Your task to perform on an android device: Go to eBay Image 0: 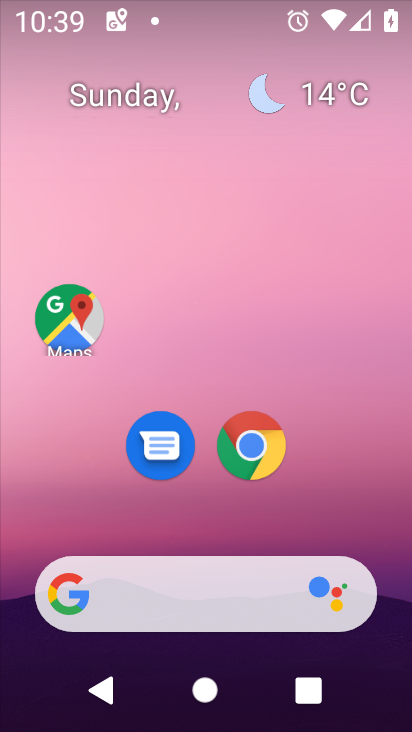
Step 0: drag from (205, 519) to (256, 57)
Your task to perform on an android device: Go to eBay Image 1: 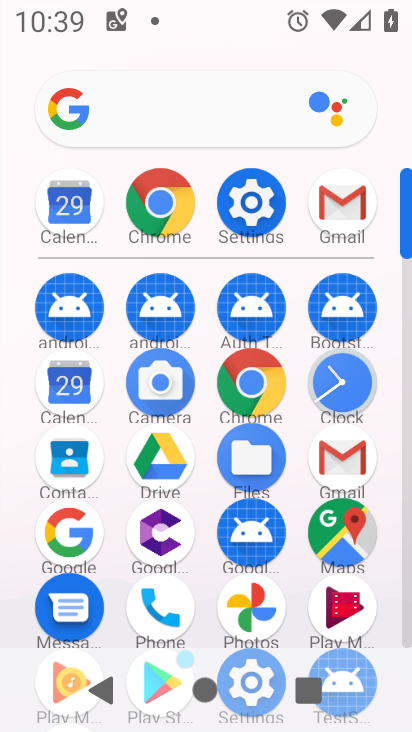
Step 1: click (209, 109)
Your task to perform on an android device: Go to eBay Image 2: 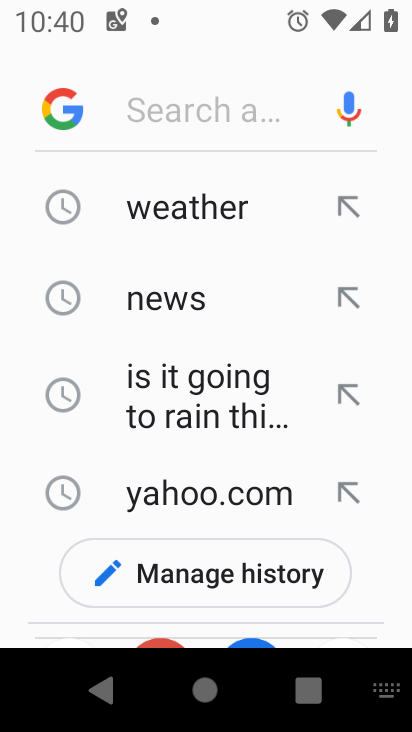
Step 2: type "ebay"
Your task to perform on an android device: Go to eBay Image 3: 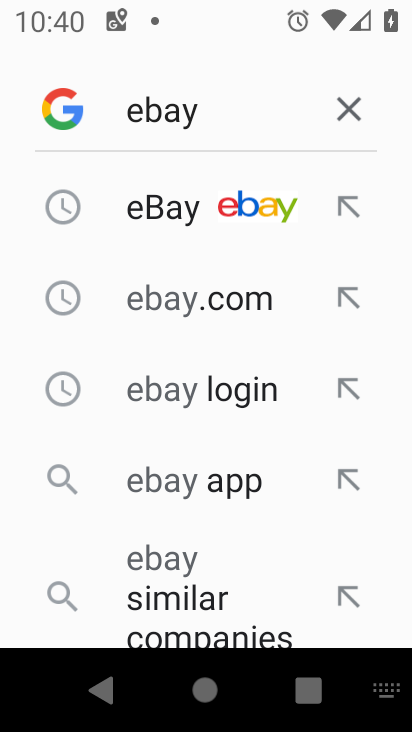
Step 3: click (154, 218)
Your task to perform on an android device: Go to eBay Image 4: 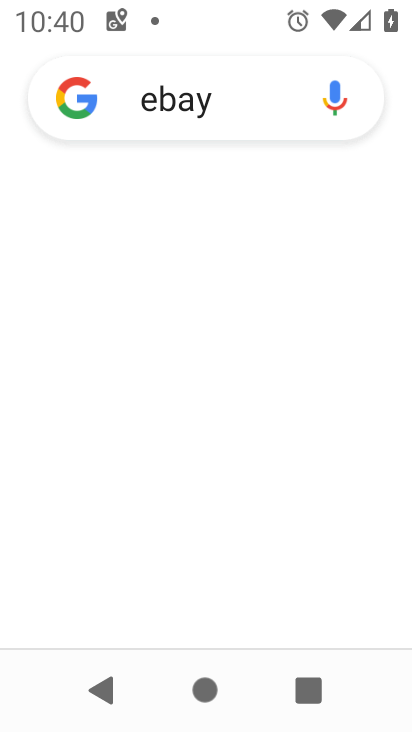
Step 4: task complete